Your task to perform on an android device: toggle priority inbox in the gmail app Image 0: 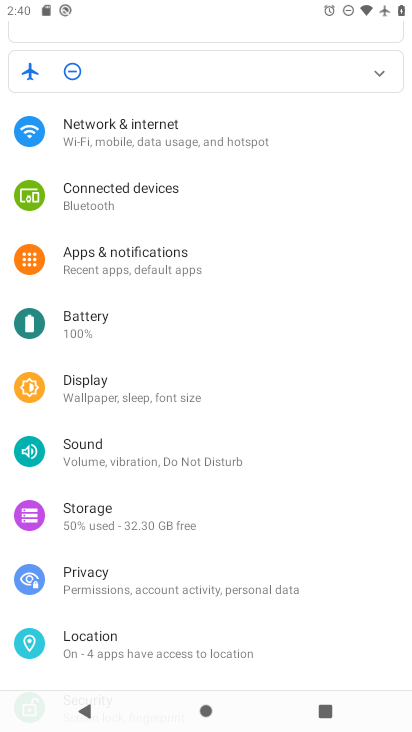
Step 0: press home button
Your task to perform on an android device: toggle priority inbox in the gmail app Image 1: 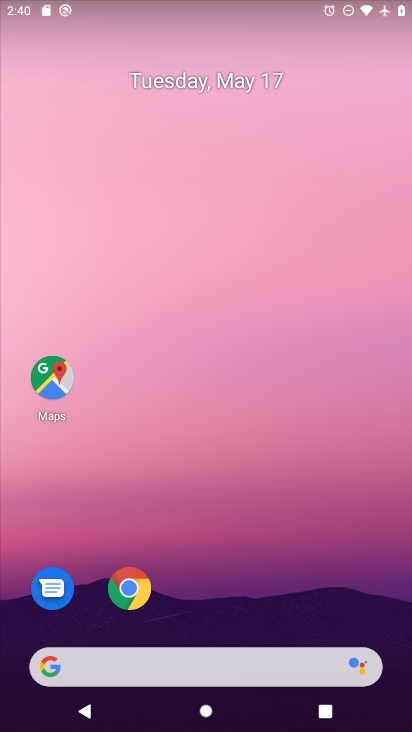
Step 1: drag from (216, 413) to (236, 200)
Your task to perform on an android device: toggle priority inbox in the gmail app Image 2: 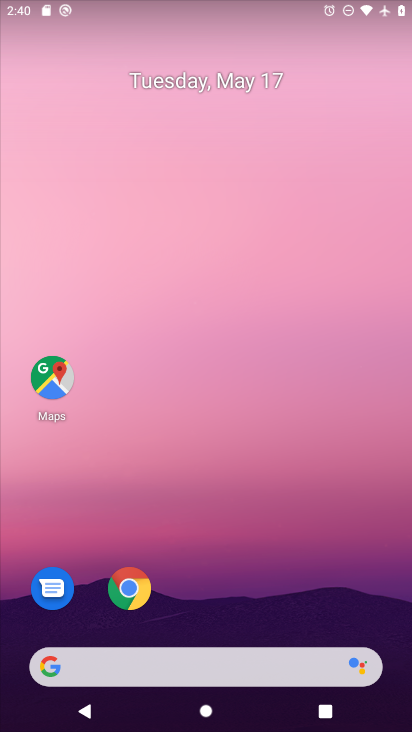
Step 2: drag from (194, 602) to (278, 42)
Your task to perform on an android device: toggle priority inbox in the gmail app Image 3: 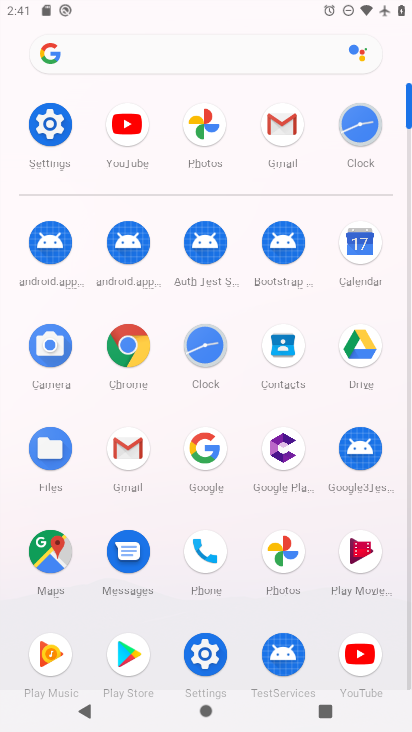
Step 3: click (125, 450)
Your task to perform on an android device: toggle priority inbox in the gmail app Image 4: 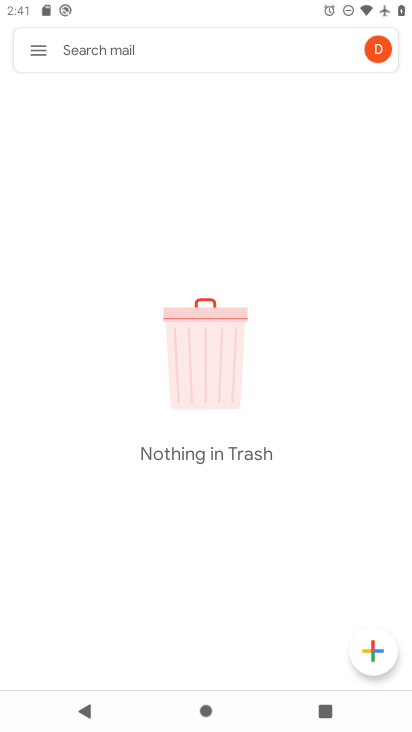
Step 4: click (43, 49)
Your task to perform on an android device: toggle priority inbox in the gmail app Image 5: 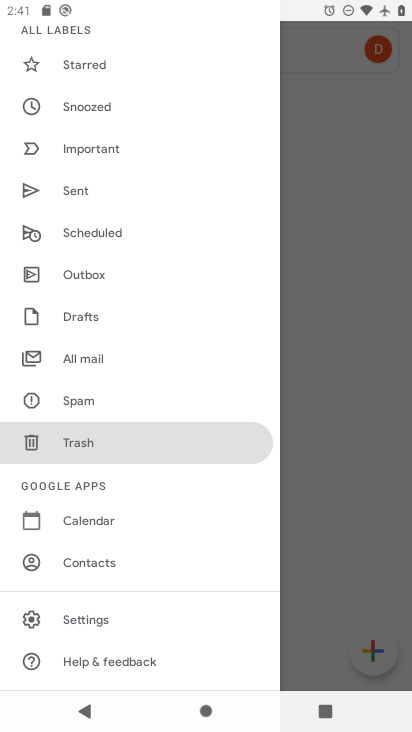
Step 5: click (90, 616)
Your task to perform on an android device: toggle priority inbox in the gmail app Image 6: 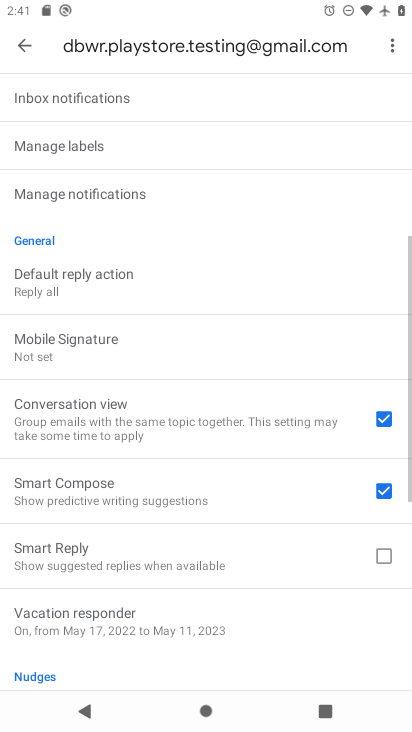
Step 6: drag from (167, 414) to (163, 644)
Your task to perform on an android device: toggle priority inbox in the gmail app Image 7: 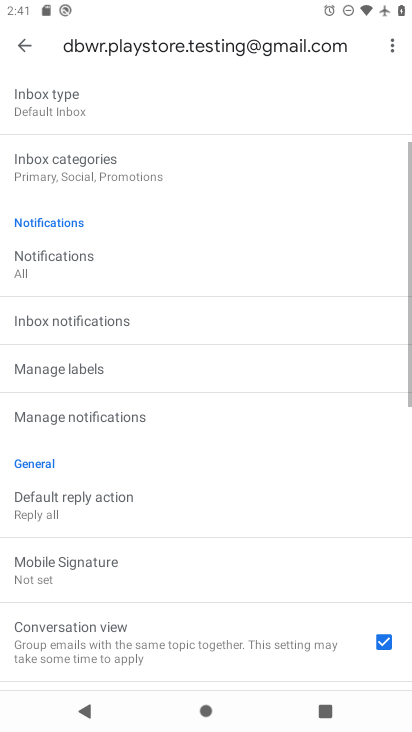
Step 7: drag from (234, 274) to (209, 554)
Your task to perform on an android device: toggle priority inbox in the gmail app Image 8: 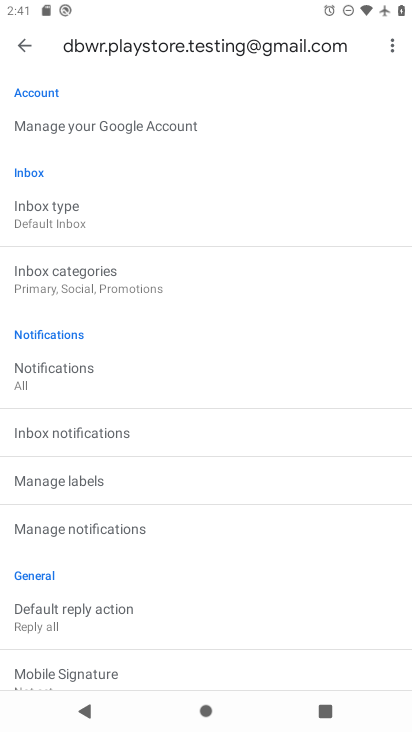
Step 8: click (53, 218)
Your task to perform on an android device: toggle priority inbox in the gmail app Image 9: 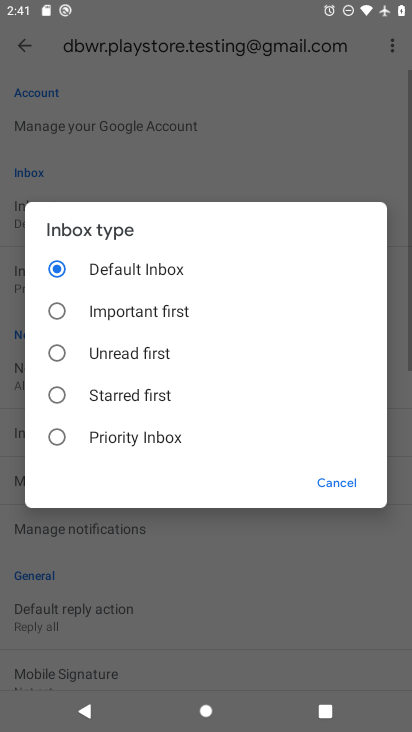
Step 9: click (125, 438)
Your task to perform on an android device: toggle priority inbox in the gmail app Image 10: 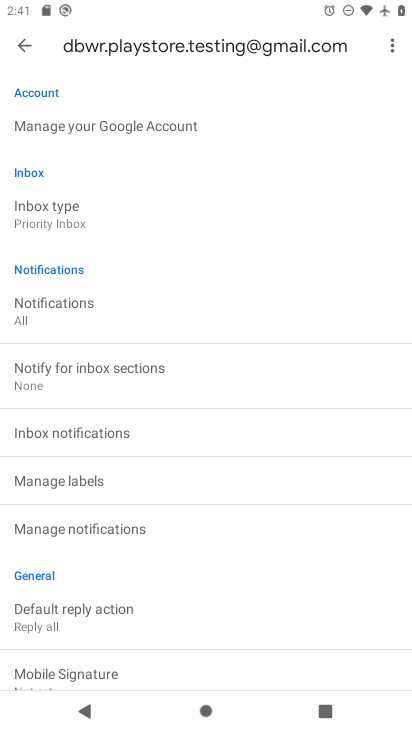
Step 10: task complete